Your task to perform on an android device: Go to sound settings Image 0: 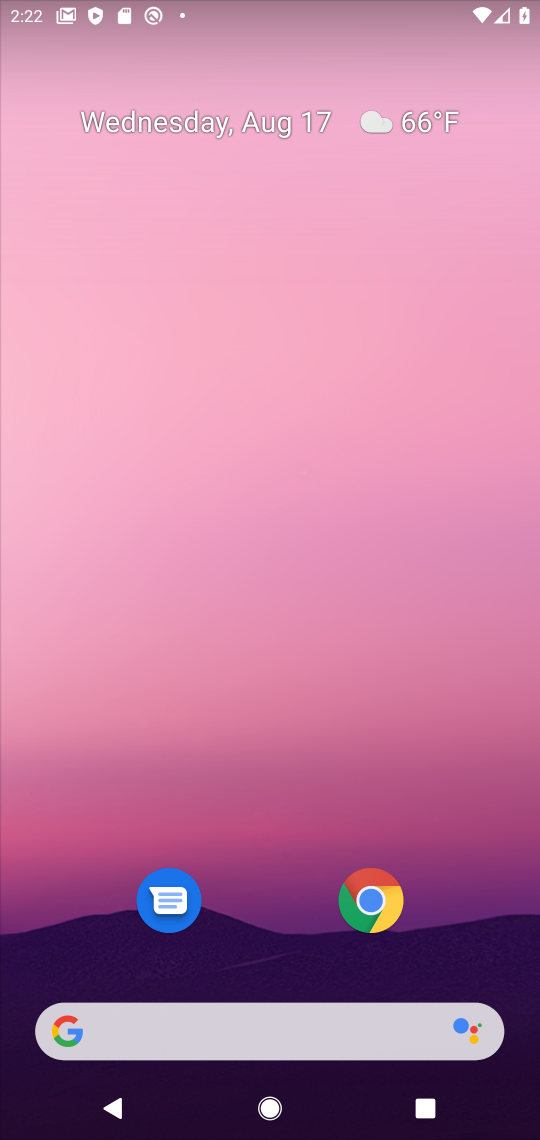
Step 0: drag from (228, 1032) to (382, 119)
Your task to perform on an android device: Go to sound settings Image 1: 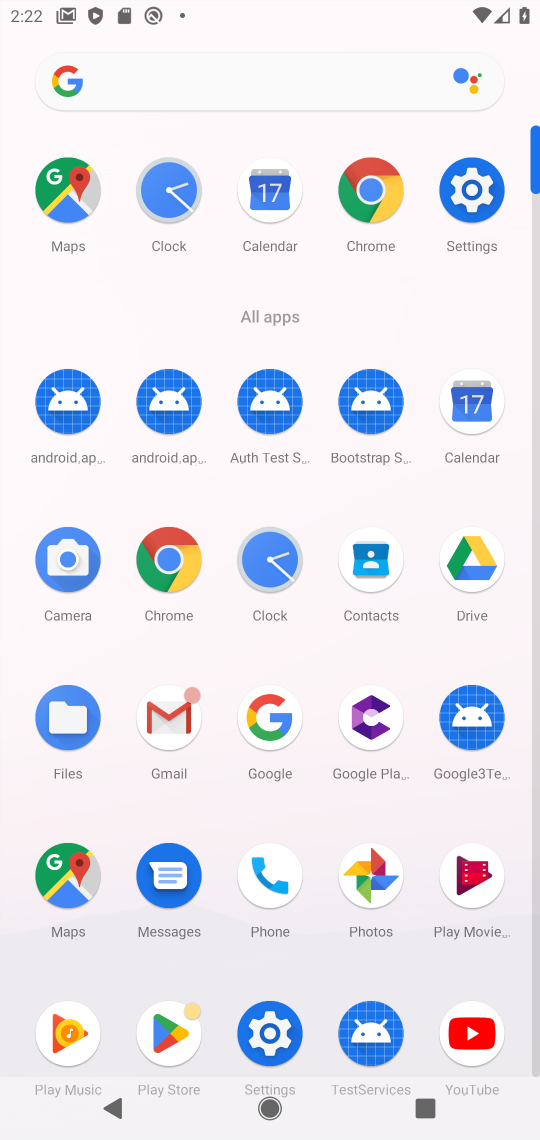
Step 1: click (460, 199)
Your task to perform on an android device: Go to sound settings Image 2: 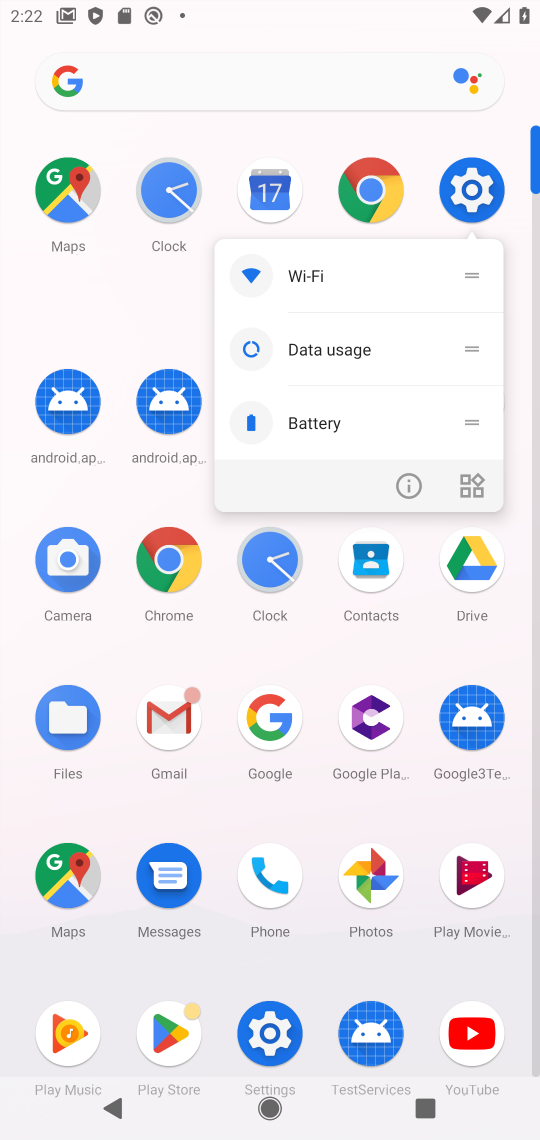
Step 2: click (472, 188)
Your task to perform on an android device: Go to sound settings Image 3: 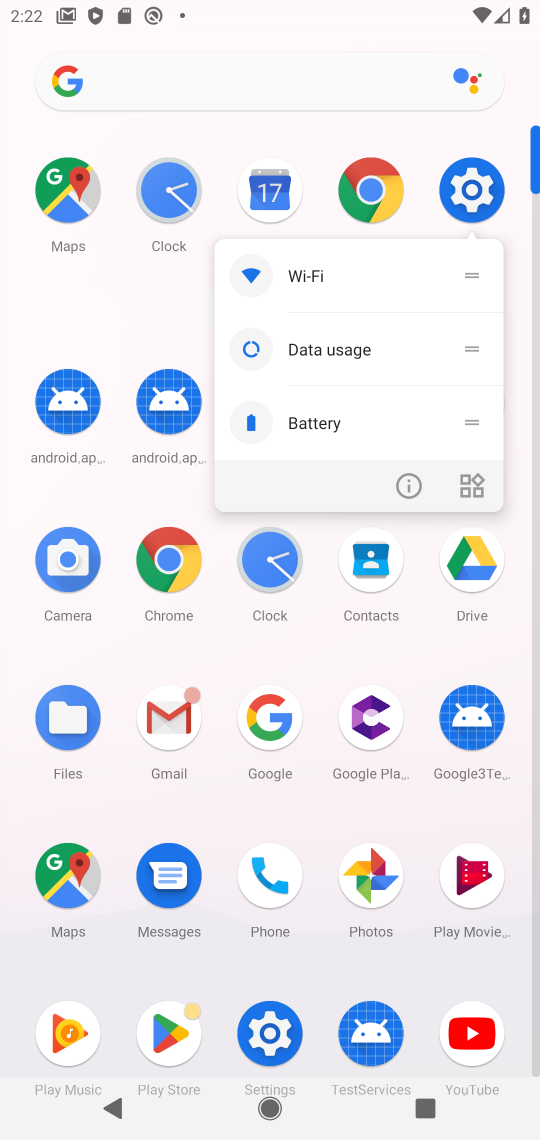
Step 3: click (472, 187)
Your task to perform on an android device: Go to sound settings Image 4: 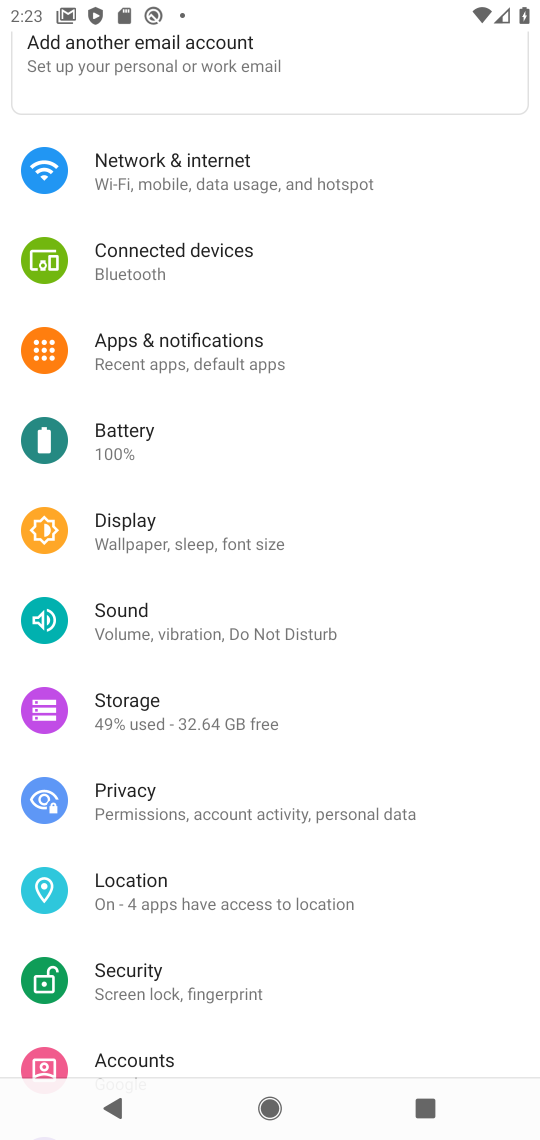
Step 4: click (121, 608)
Your task to perform on an android device: Go to sound settings Image 5: 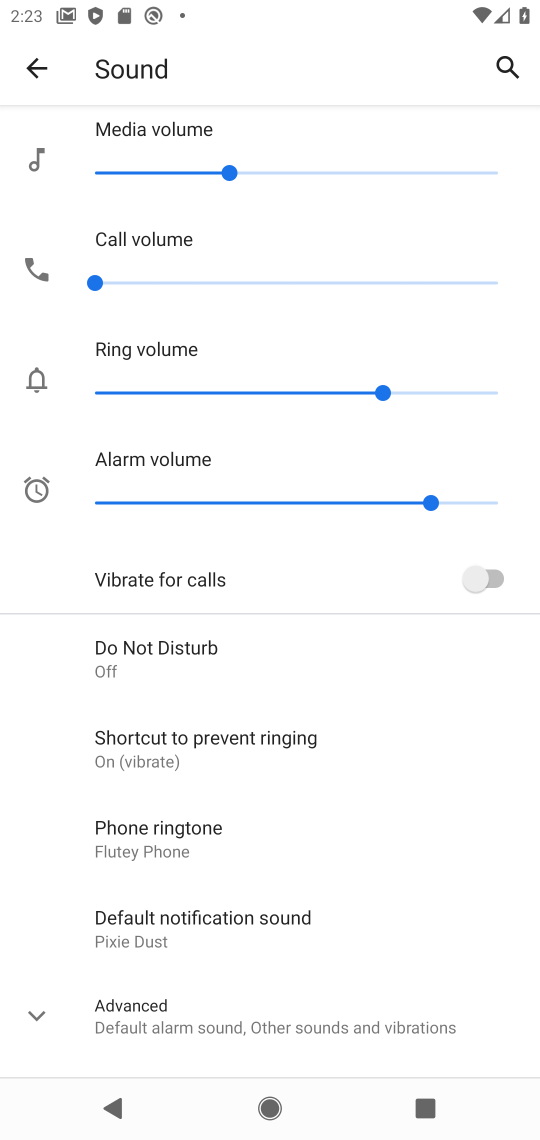
Step 5: task complete